Your task to perform on an android device: add a label to a message in the gmail app Image 0: 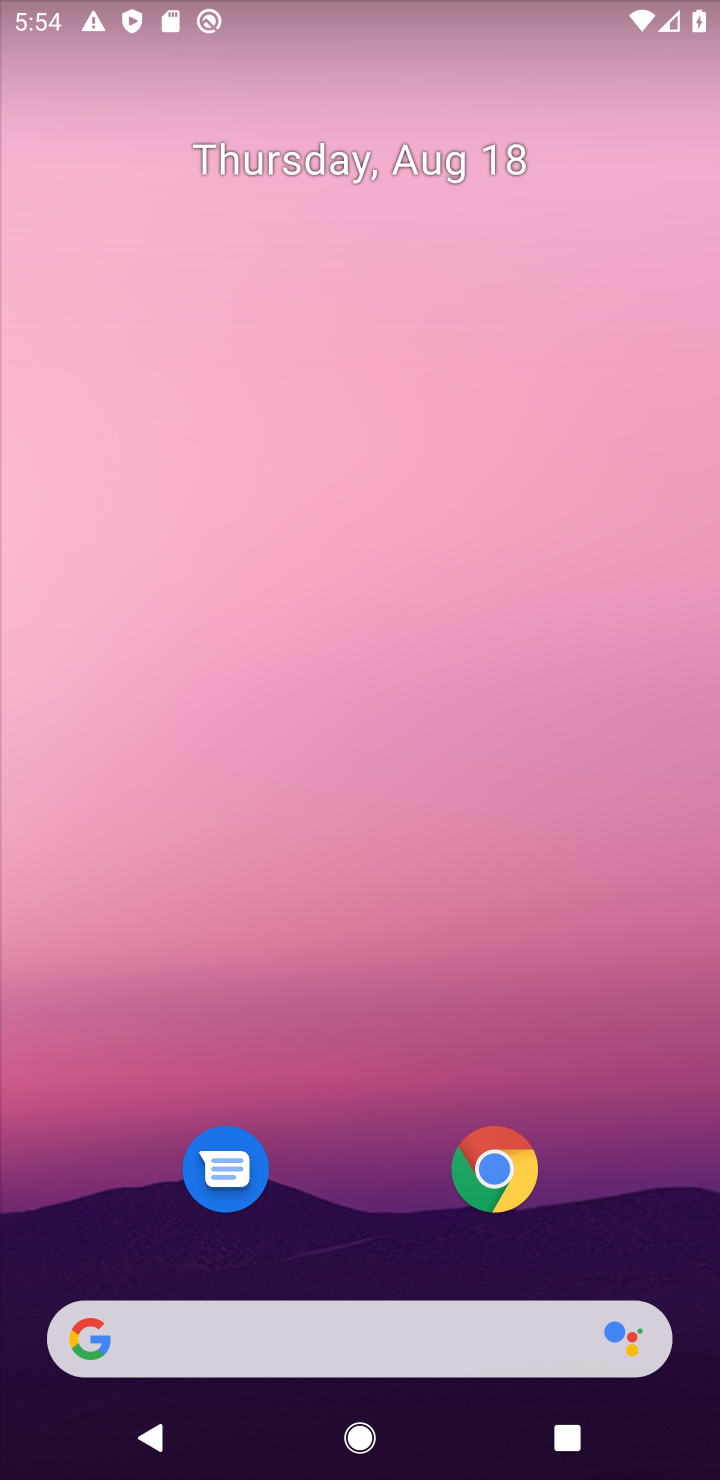
Step 0: drag from (365, 821) to (221, 25)
Your task to perform on an android device: add a label to a message in the gmail app Image 1: 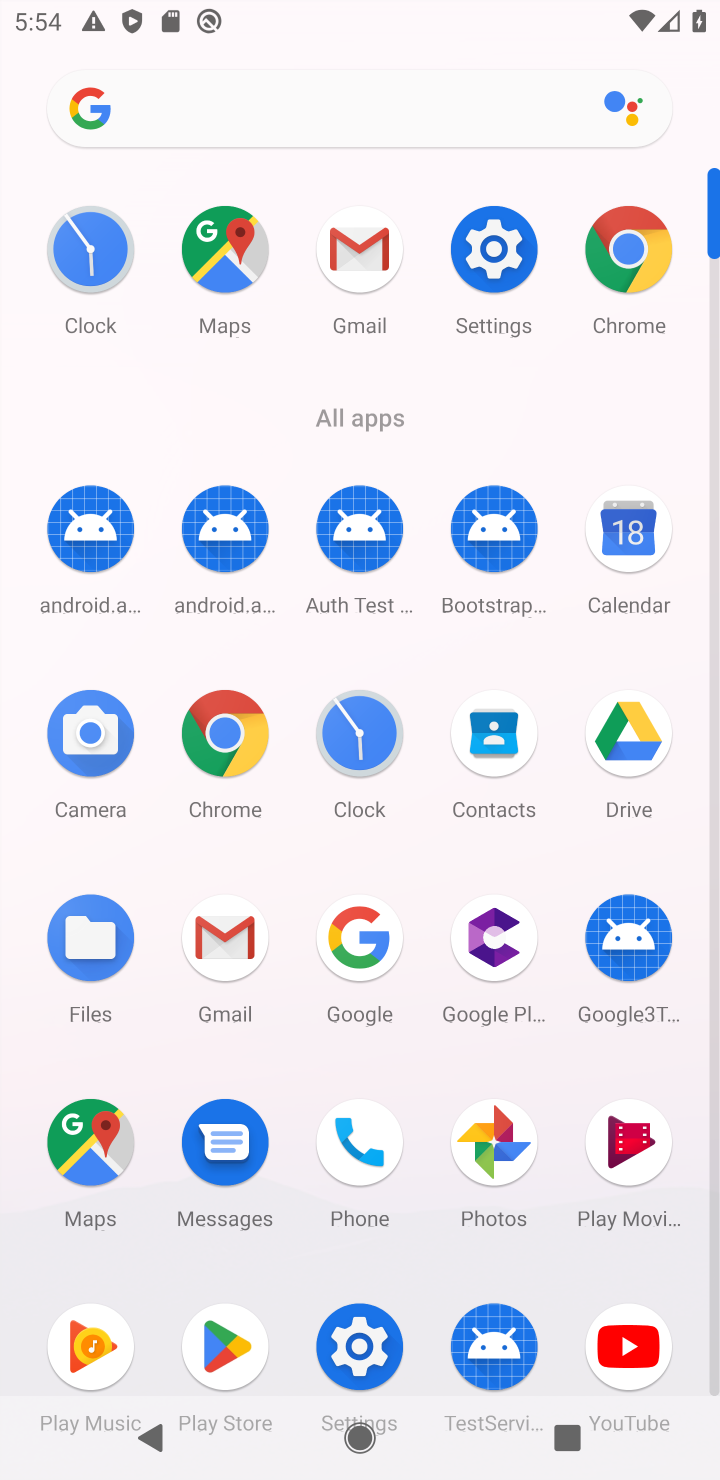
Step 1: click (358, 254)
Your task to perform on an android device: add a label to a message in the gmail app Image 2: 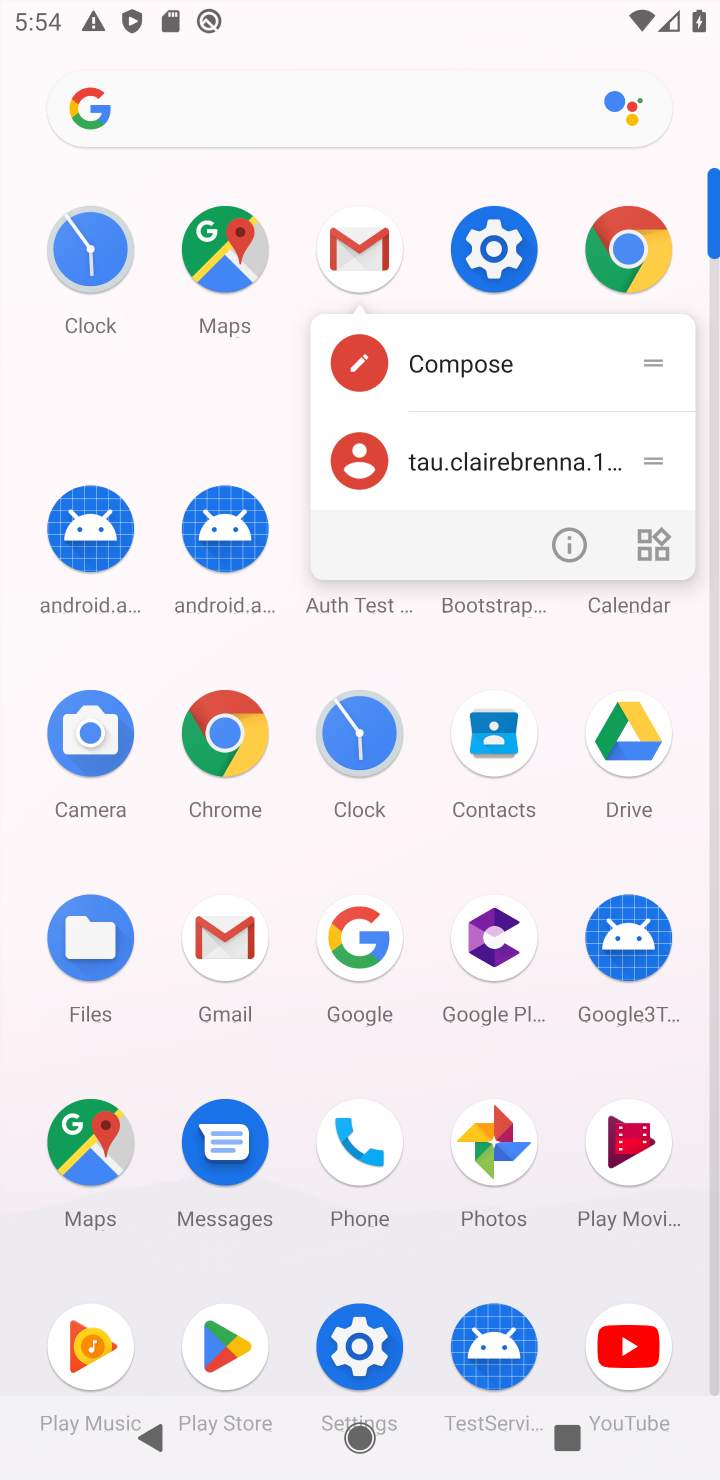
Step 2: click (358, 254)
Your task to perform on an android device: add a label to a message in the gmail app Image 3: 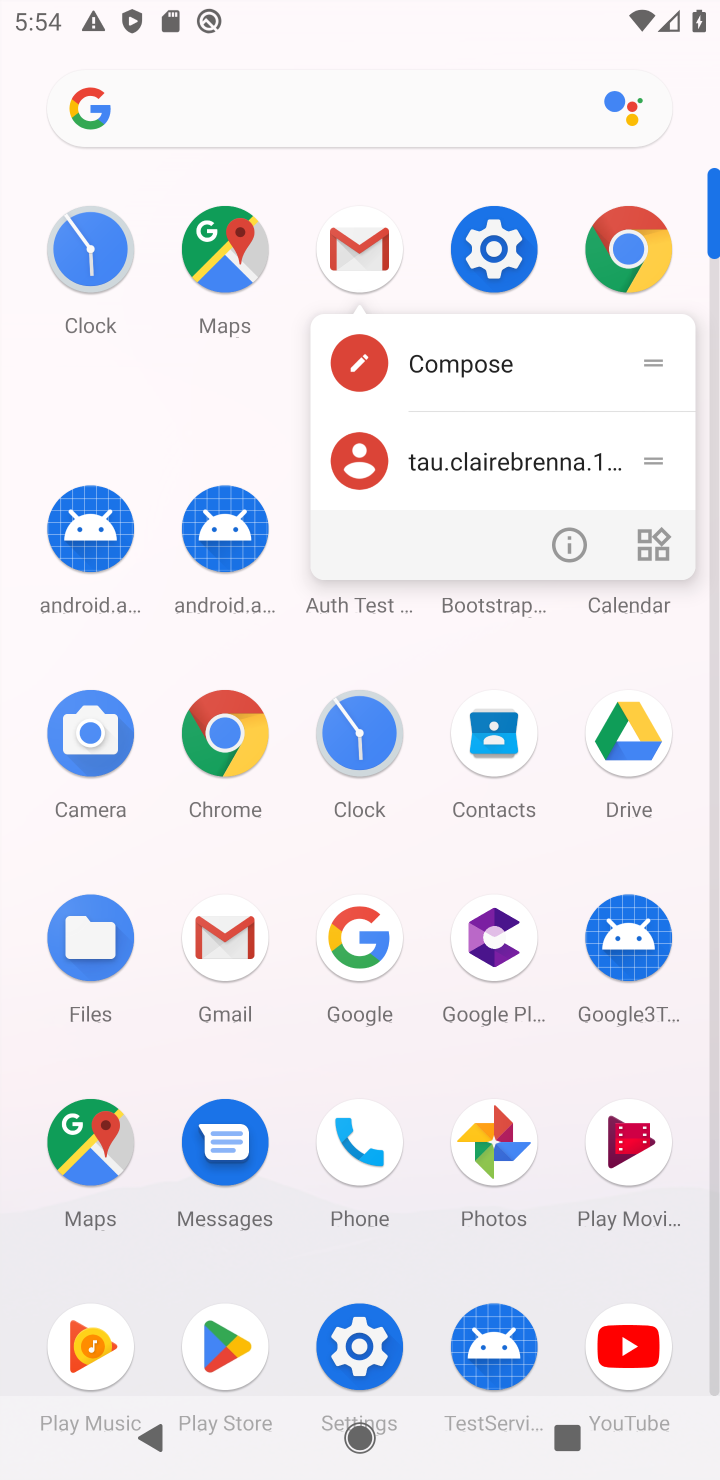
Step 3: click (358, 254)
Your task to perform on an android device: add a label to a message in the gmail app Image 4: 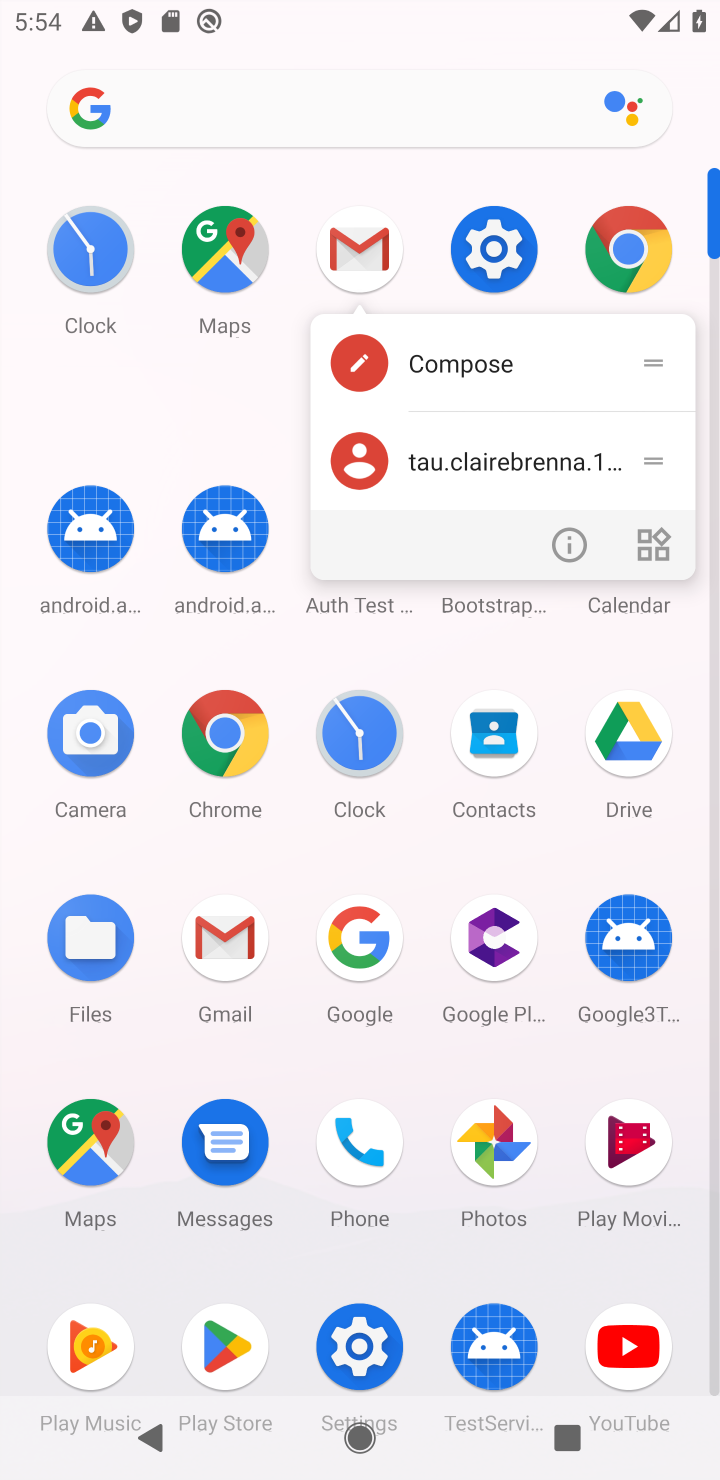
Step 4: click (358, 254)
Your task to perform on an android device: add a label to a message in the gmail app Image 5: 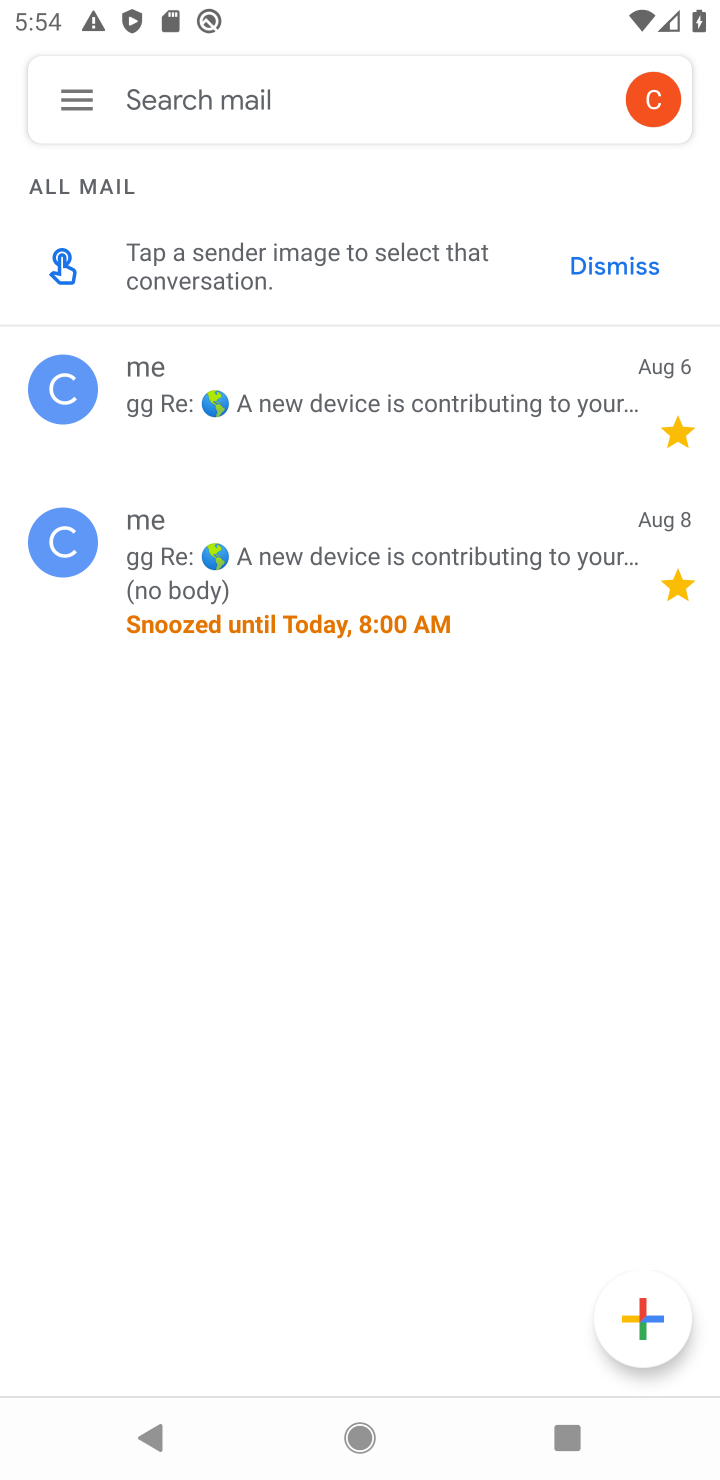
Step 5: click (394, 395)
Your task to perform on an android device: add a label to a message in the gmail app Image 6: 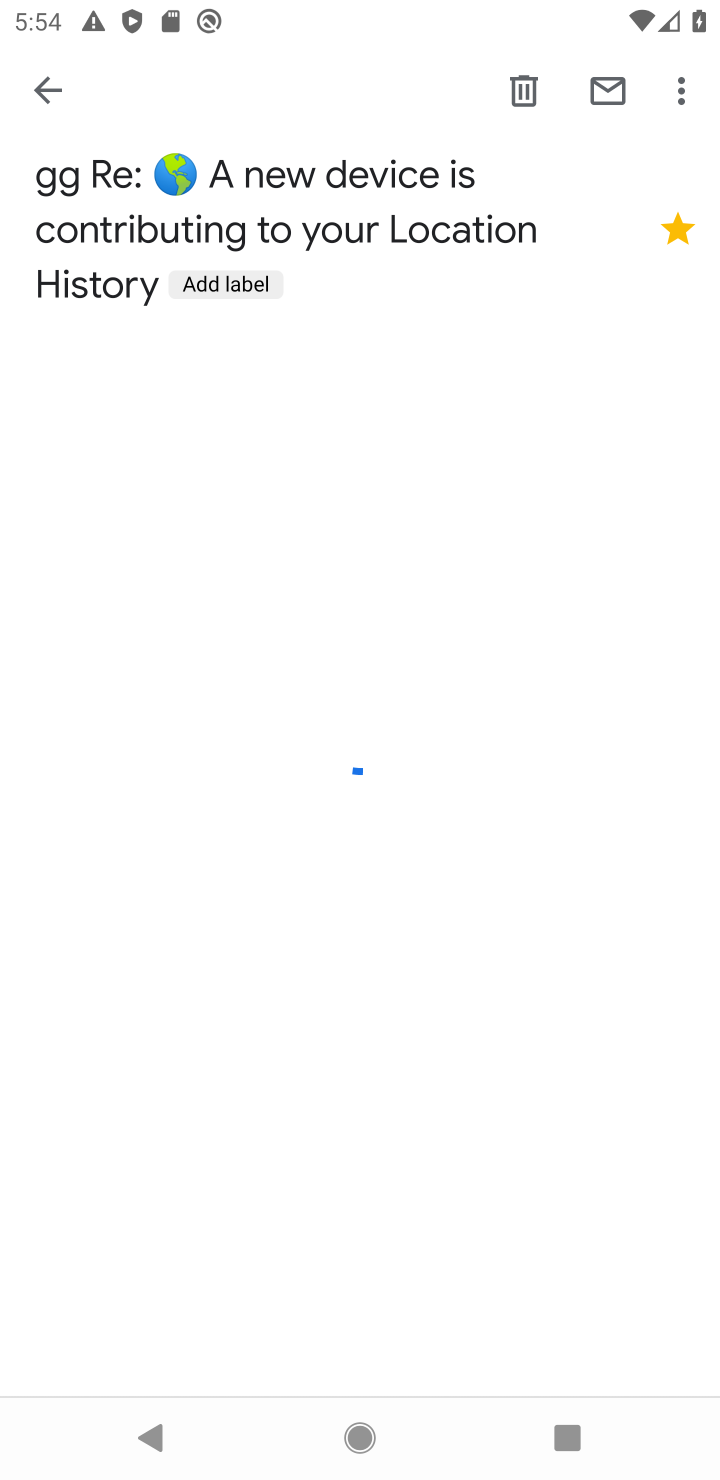
Step 6: click (686, 94)
Your task to perform on an android device: add a label to a message in the gmail app Image 7: 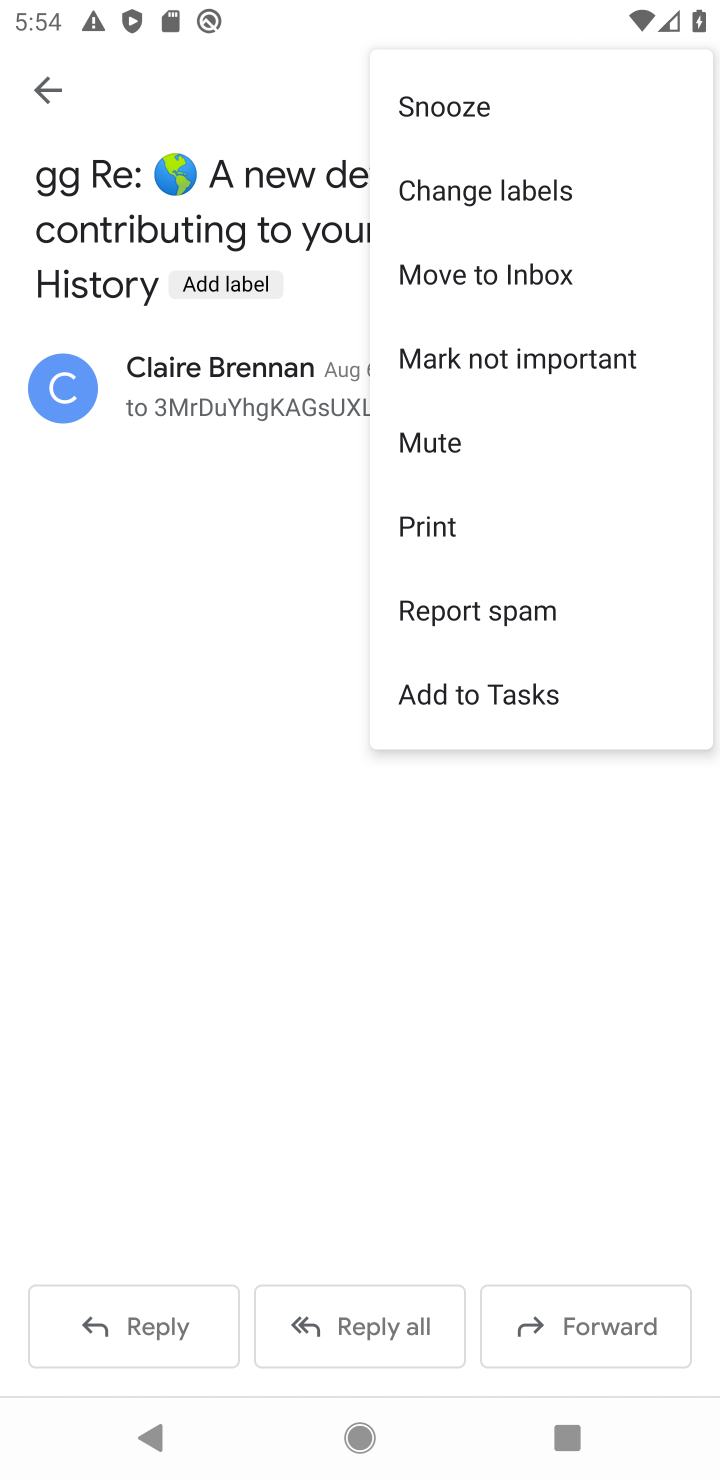
Step 7: click (518, 187)
Your task to perform on an android device: add a label to a message in the gmail app Image 8: 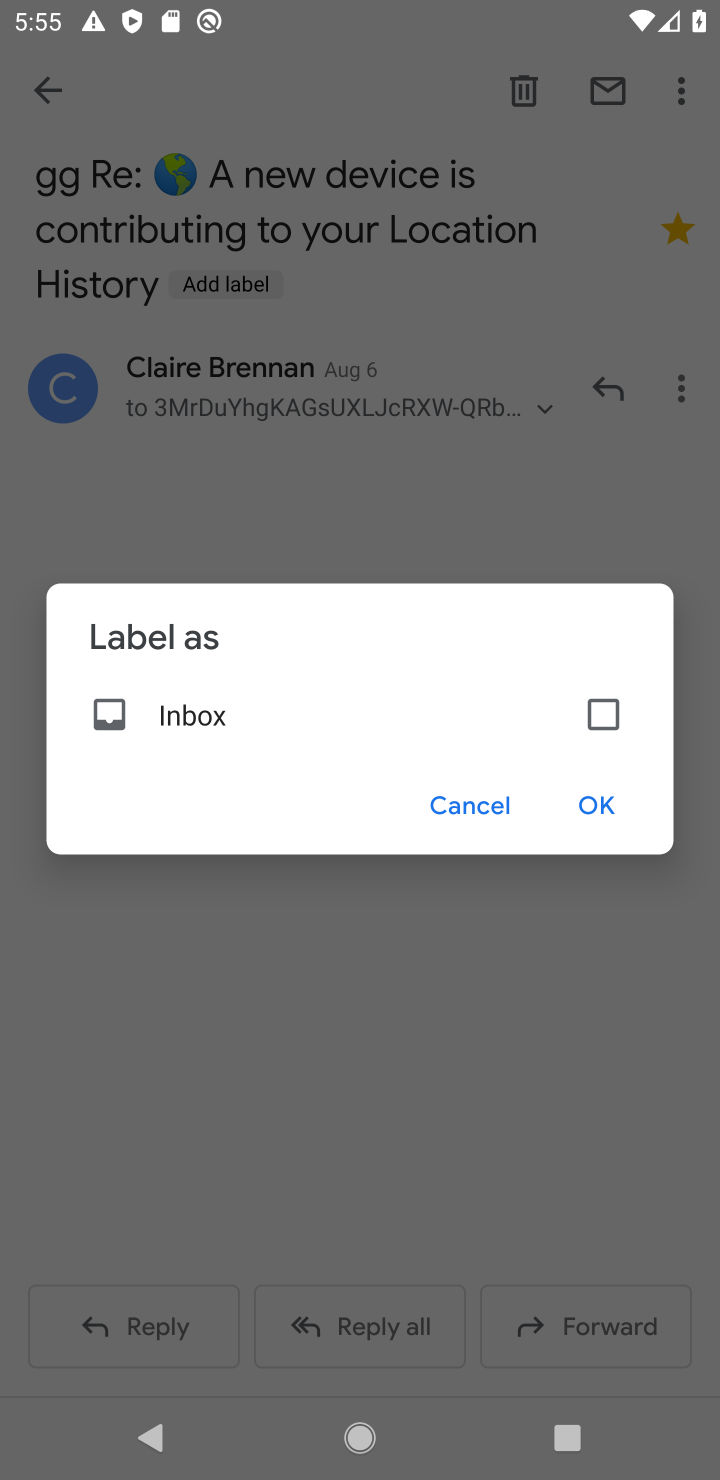
Step 8: click (605, 730)
Your task to perform on an android device: add a label to a message in the gmail app Image 9: 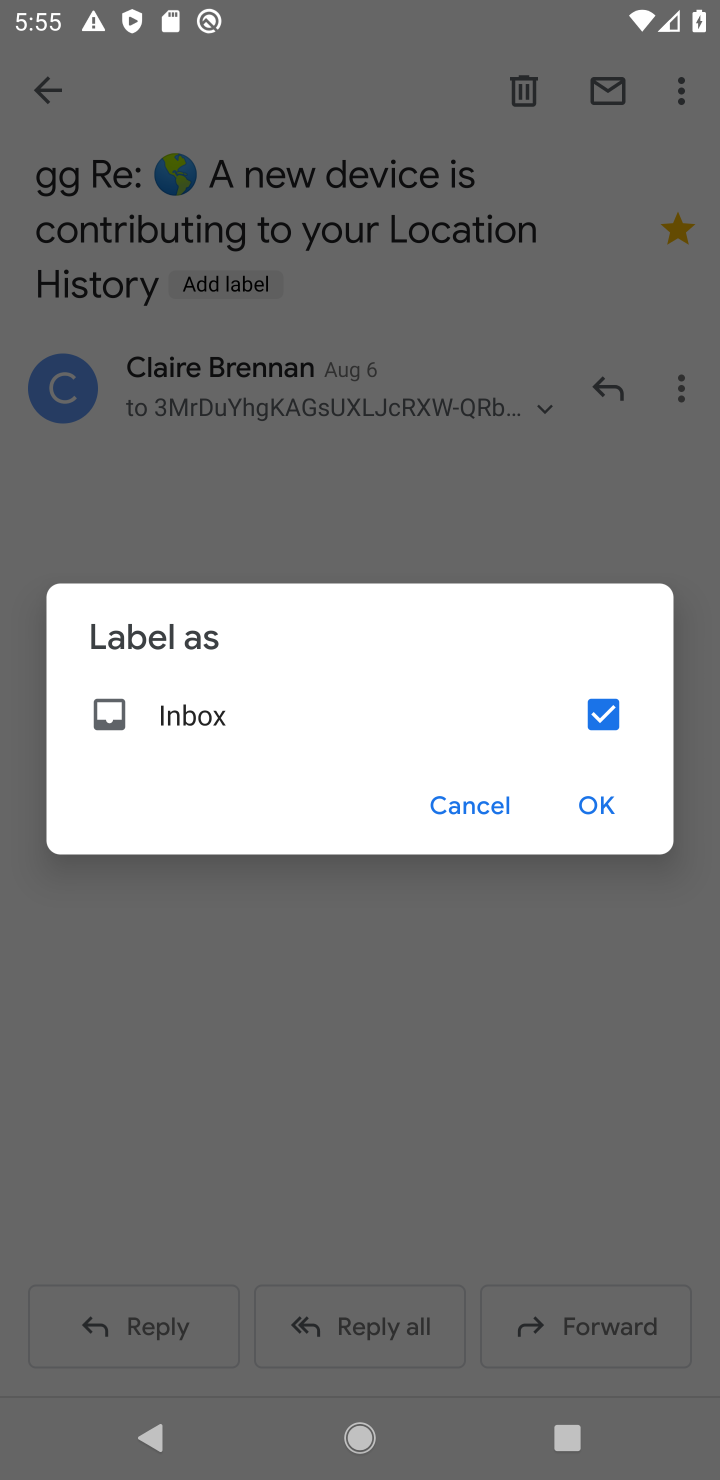
Step 9: click (591, 812)
Your task to perform on an android device: add a label to a message in the gmail app Image 10: 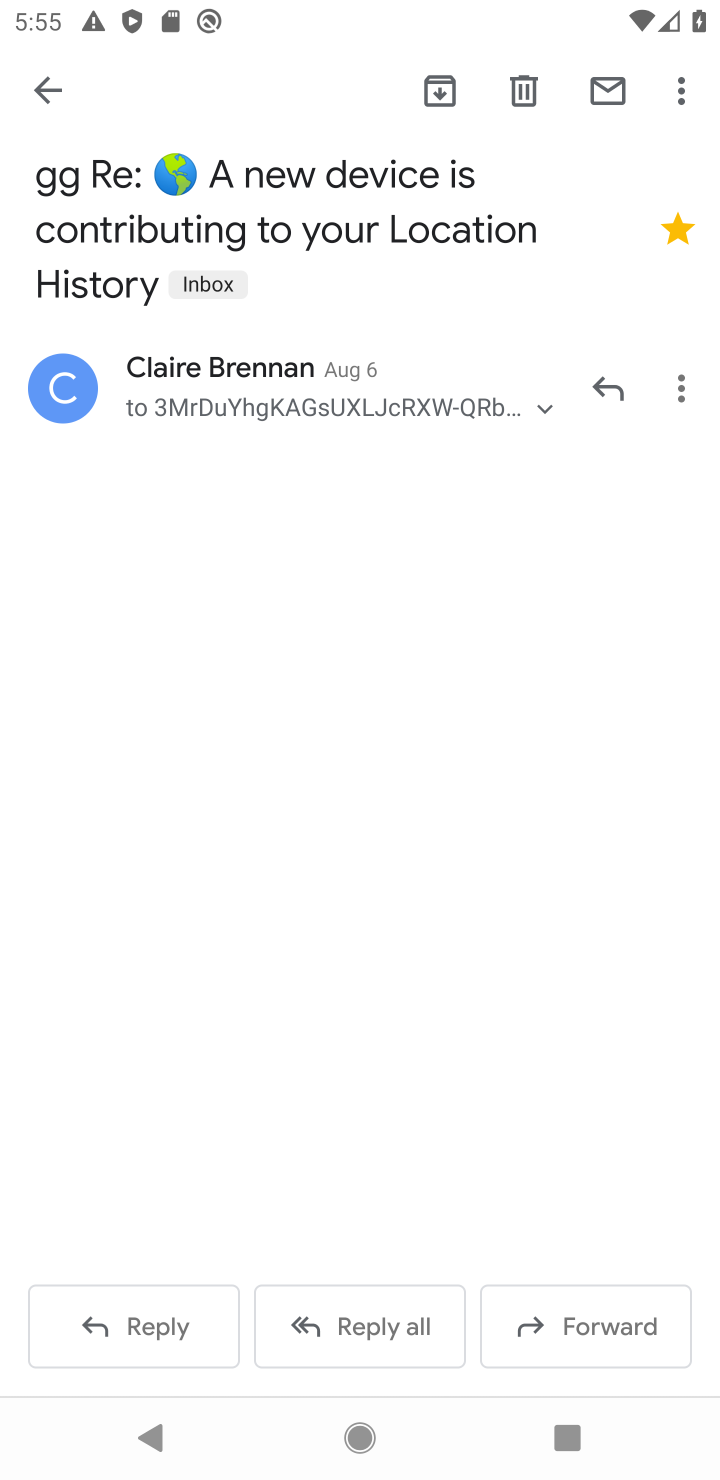
Step 10: task complete